Your task to perform on an android device: turn on the 24-hour format for clock Image 0: 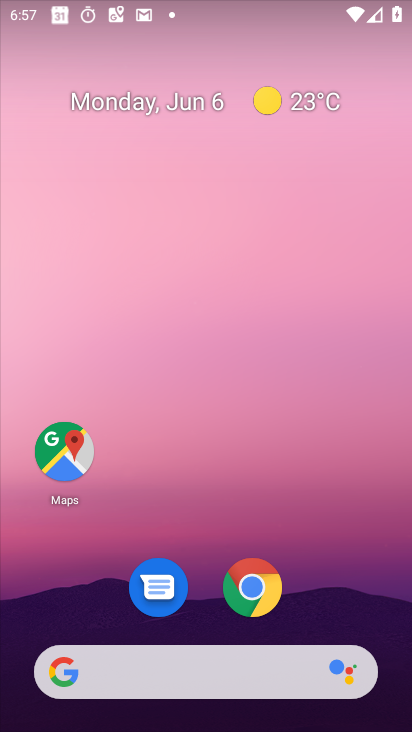
Step 0: drag from (392, 660) to (272, 62)
Your task to perform on an android device: turn on the 24-hour format for clock Image 1: 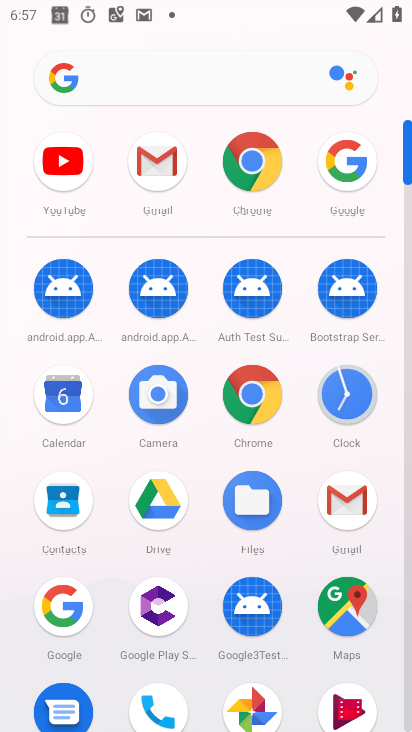
Step 1: click (334, 391)
Your task to perform on an android device: turn on the 24-hour format for clock Image 2: 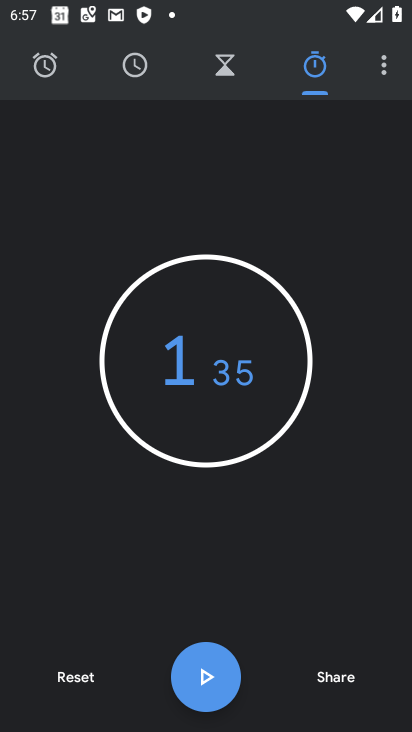
Step 2: click (382, 63)
Your task to perform on an android device: turn on the 24-hour format for clock Image 3: 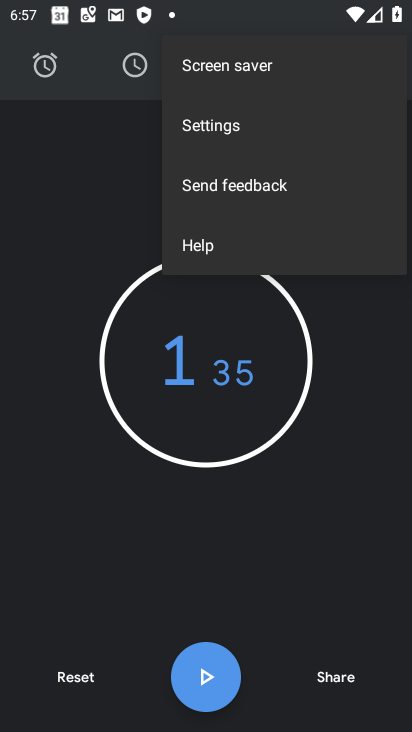
Step 3: click (189, 126)
Your task to perform on an android device: turn on the 24-hour format for clock Image 4: 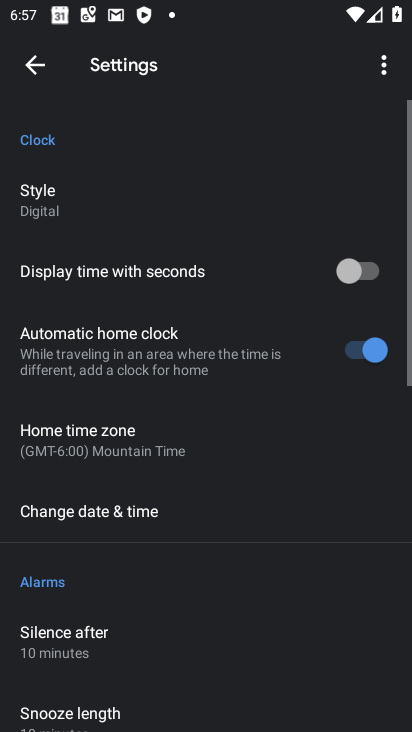
Step 4: click (144, 524)
Your task to perform on an android device: turn on the 24-hour format for clock Image 5: 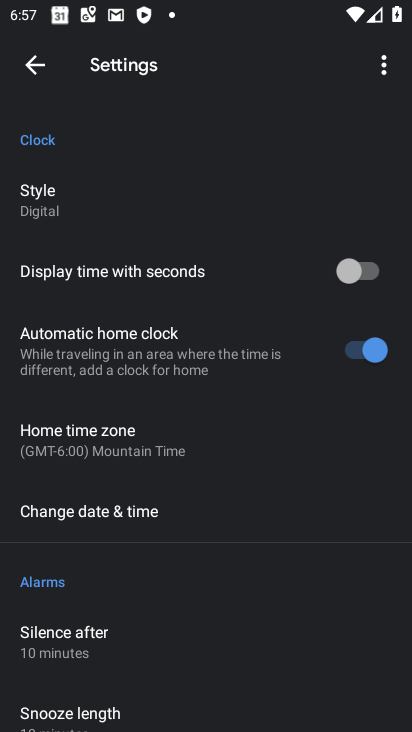
Step 5: task complete